Your task to perform on an android device: Go to Google Image 0: 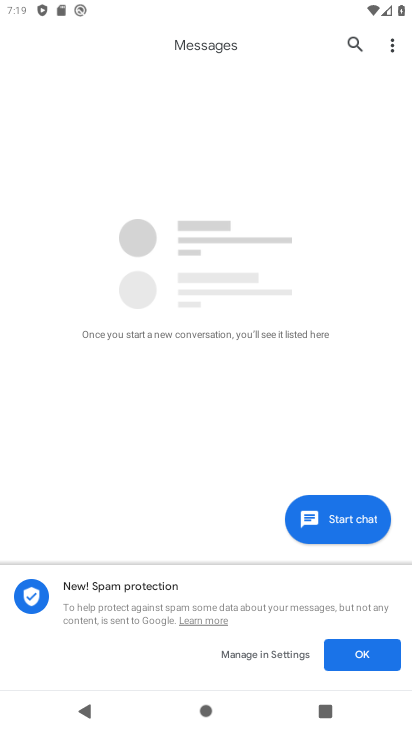
Step 0: press home button
Your task to perform on an android device: Go to Google Image 1: 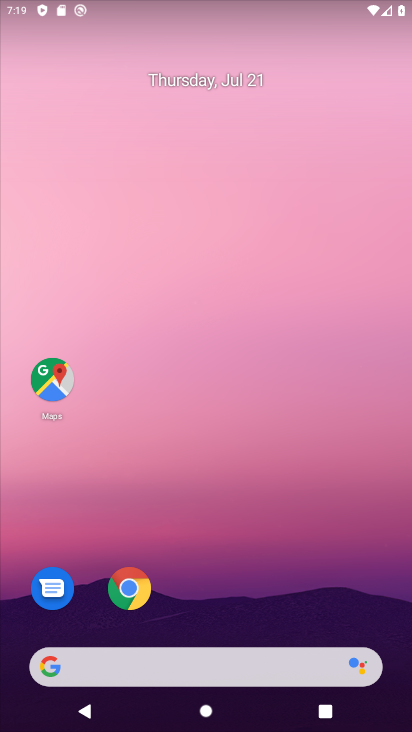
Step 1: drag from (222, 653) to (232, 239)
Your task to perform on an android device: Go to Google Image 2: 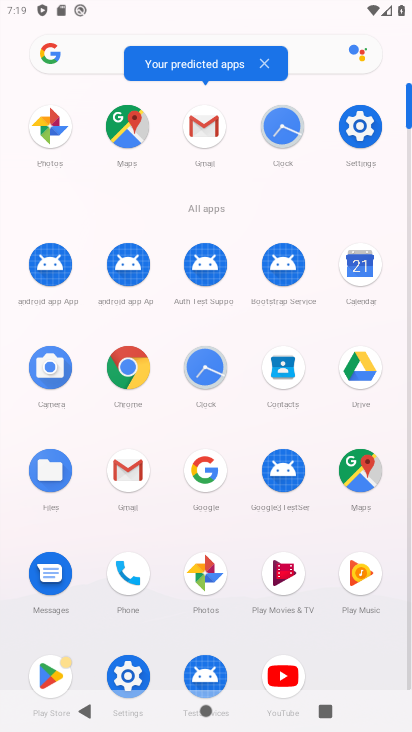
Step 2: click (205, 470)
Your task to perform on an android device: Go to Google Image 3: 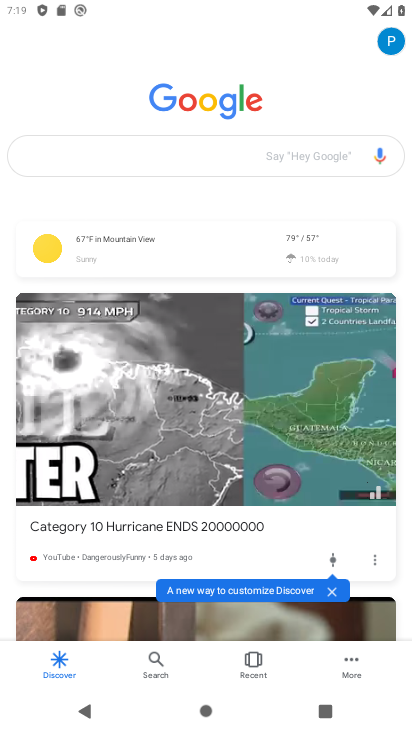
Step 3: task complete